Your task to perform on an android device: Go to accessibility settings Image 0: 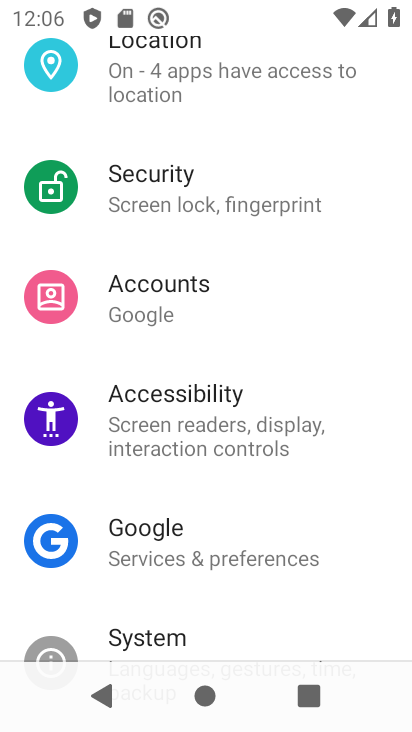
Step 0: press back button
Your task to perform on an android device: Go to accessibility settings Image 1: 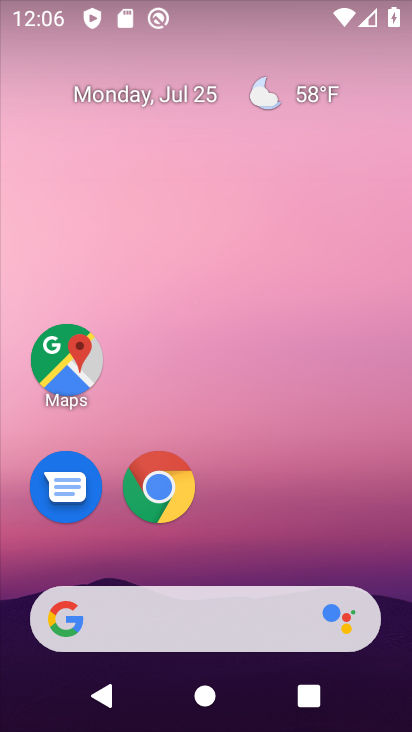
Step 1: drag from (256, 549) to (357, 21)
Your task to perform on an android device: Go to accessibility settings Image 2: 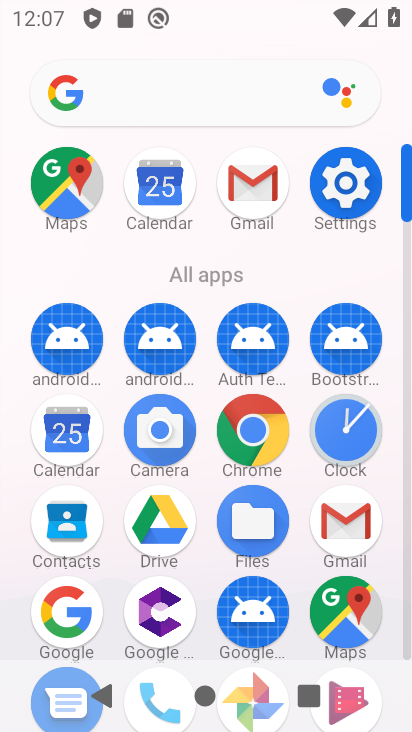
Step 2: click (339, 199)
Your task to perform on an android device: Go to accessibility settings Image 3: 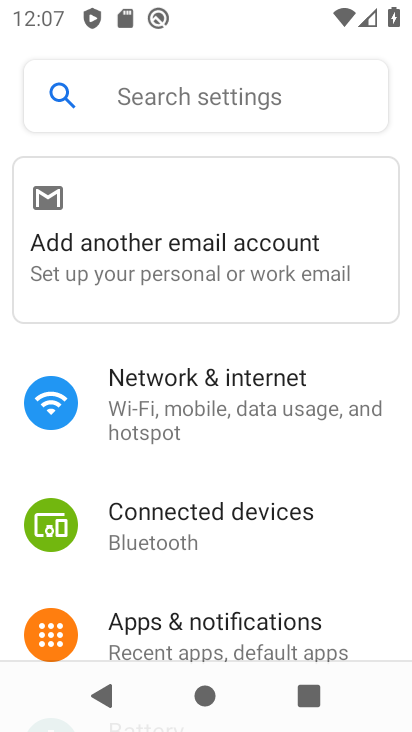
Step 3: drag from (206, 597) to (358, 56)
Your task to perform on an android device: Go to accessibility settings Image 4: 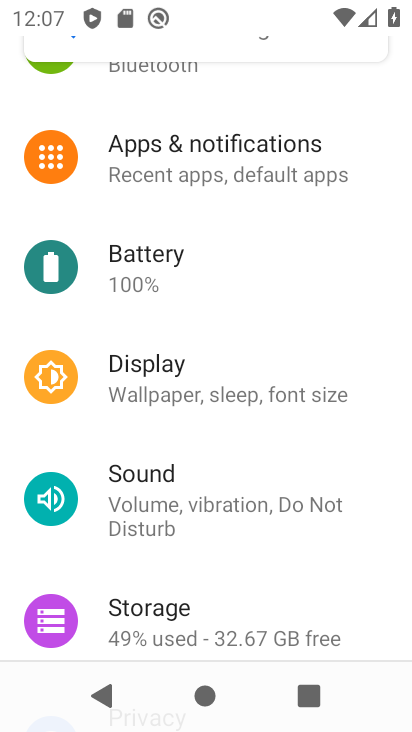
Step 4: drag from (188, 544) to (350, 34)
Your task to perform on an android device: Go to accessibility settings Image 5: 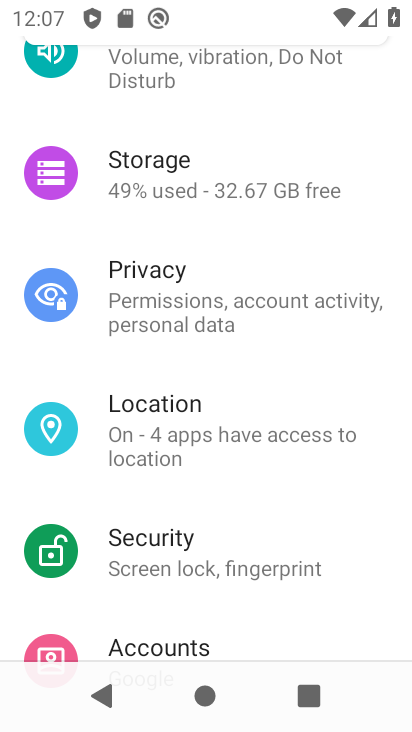
Step 5: drag from (231, 578) to (310, 2)
Your task to perform on an android device: Go to accessibility settings Image 6: 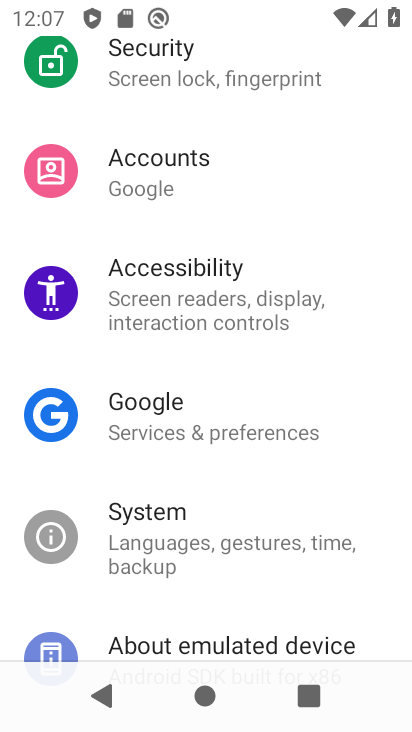
Step 6: click (172, 294)
Your task to perform on an android device: Go to accessibility settings Image 7: 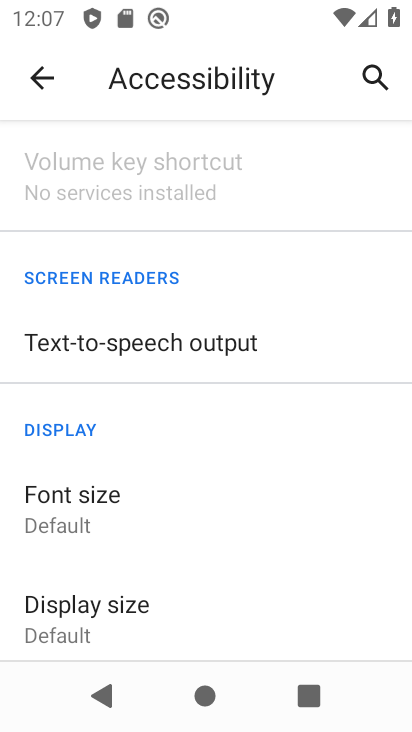
Step 7: task complete